Your task to perform on an android device: toggle pop-ups in chrome Image 0: 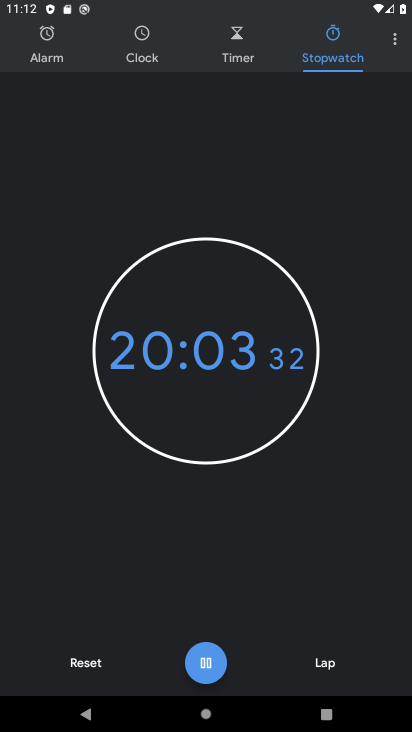
Step 0: press home button
Your task to perform on an android device: toggle pop-ups in chrome Image 1: 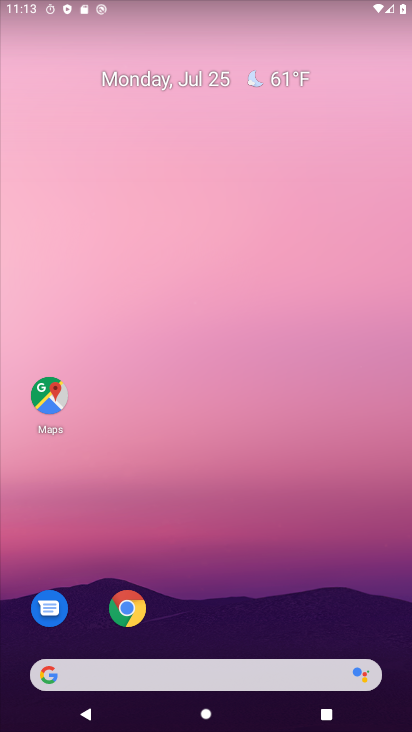
Step 1: drag from (197, 628) to (13, 509)
Your task to perform on an android device: toggle pop-ups in chrome Image 2: 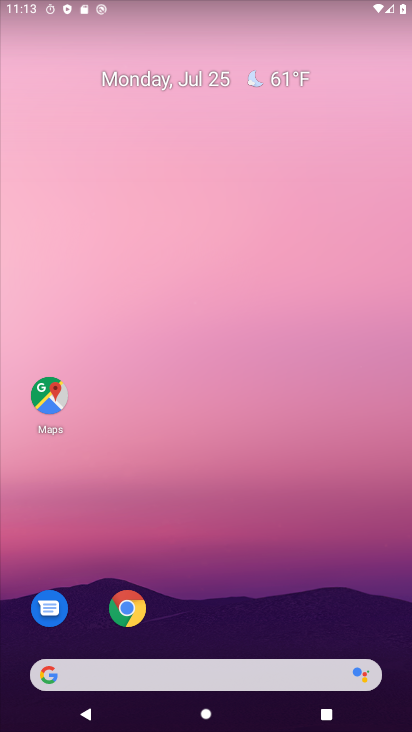
Step 2: drag from (269, 653) to (206, 15)
Your task to perform on an android device: toggle pop-ups in chrome Image 3: 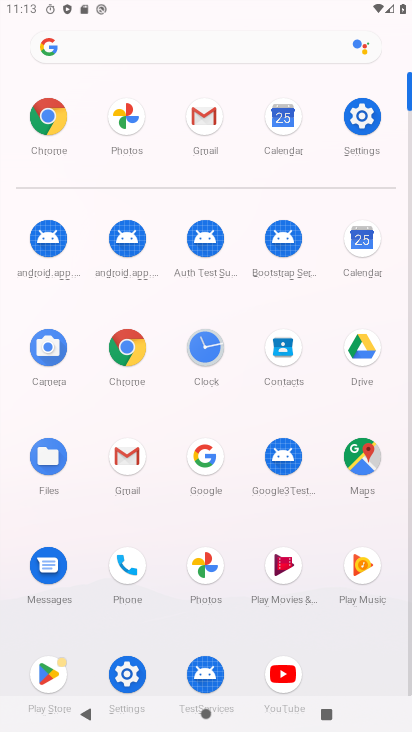
Step 3: click (48, 134)
Your task to perform on an android device: toggle pop-ups in chrome Image 4: 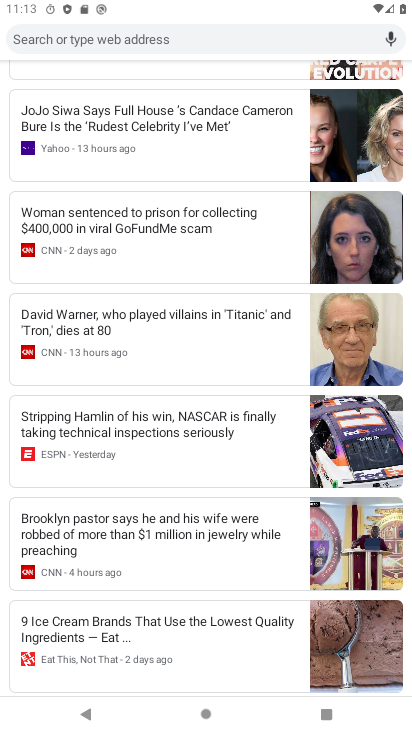
Step 4: drag from (79, 149) to (107, 731)
Your task to perform on an android device: toggle pop-ups in chrome Image 5: 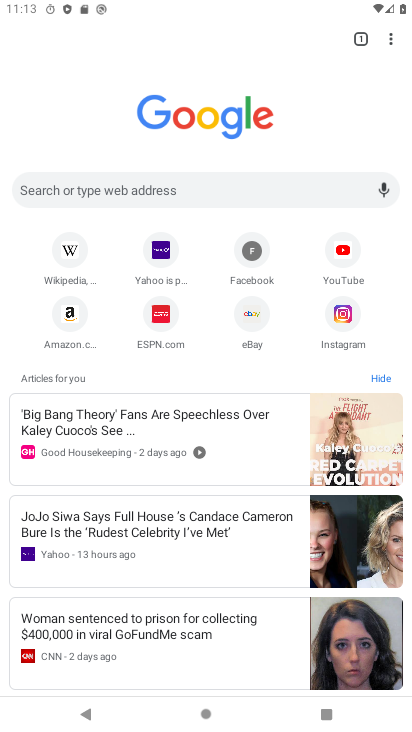
Step 5: drag from (385, 46) to (240, 339)
Your task to perform on an android device: toggle pop-ups in chrome Image 6: 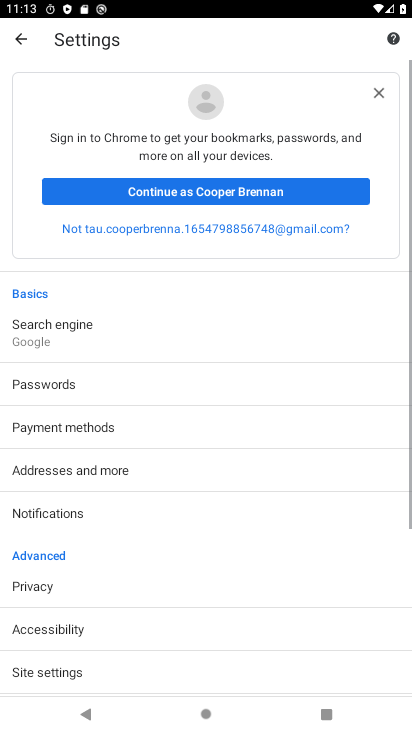
Step 6: drag from (8, 644) to (62, 185)
Your task to perform on an android device: toggle pop-ups in chrome Image 7: 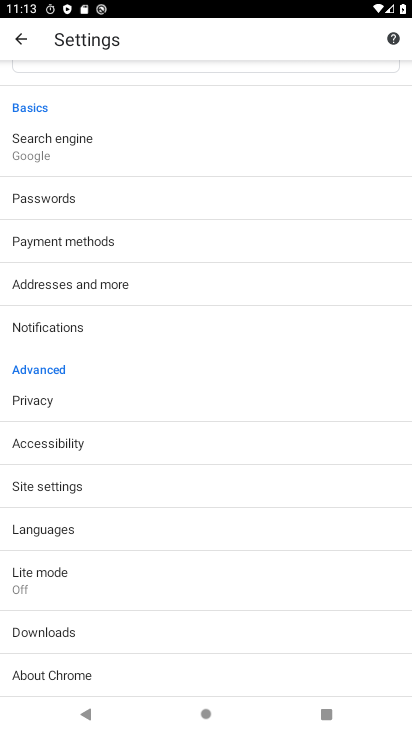
Step 7: click (35, 495)
Your task to perform on an android device: toggle pop-ups in chrome Image 8: 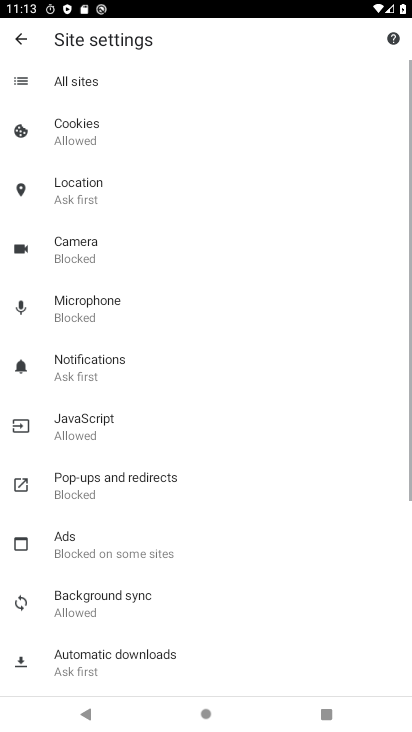
Step 8: click (65, 490)
Your task to perform on an android device: toggle pop-ups in chrome Image 9: 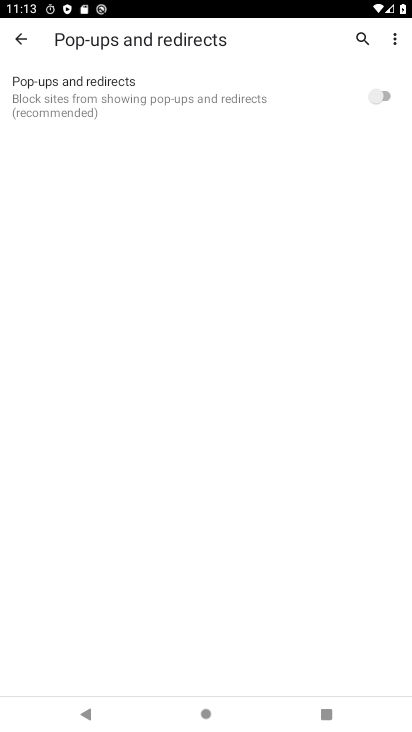
Step 9: click (375, 92)
Your task to perform on an android device: toggle pop-ups in chrome Image 10: 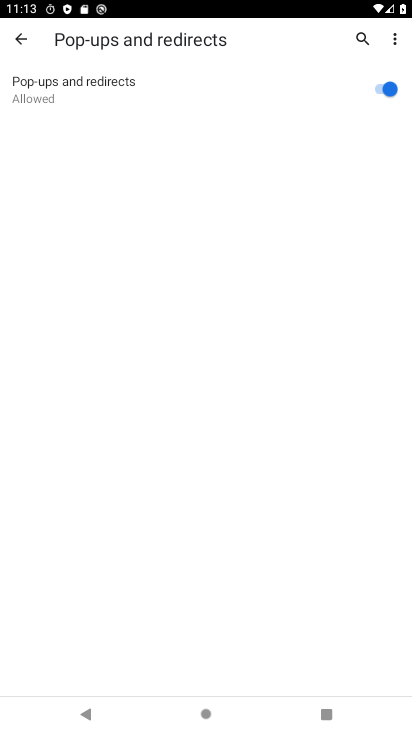
Step 10: task complete